Your task to perform on an android device: Open maps Image 0: 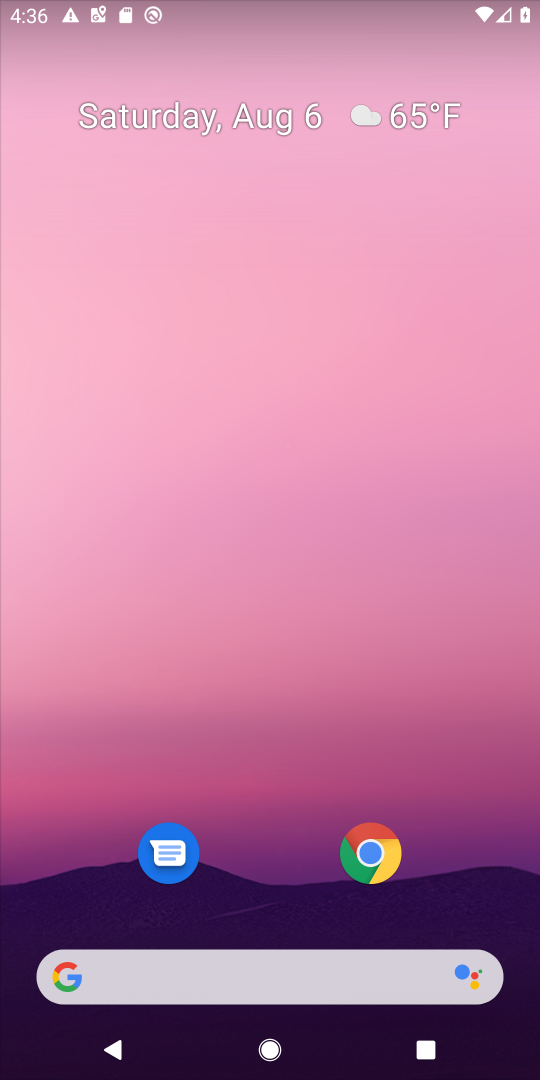
Step 0: drag from (245, 739) to (366, 67)
Your task to perform on an android device: Open maps Image 1: 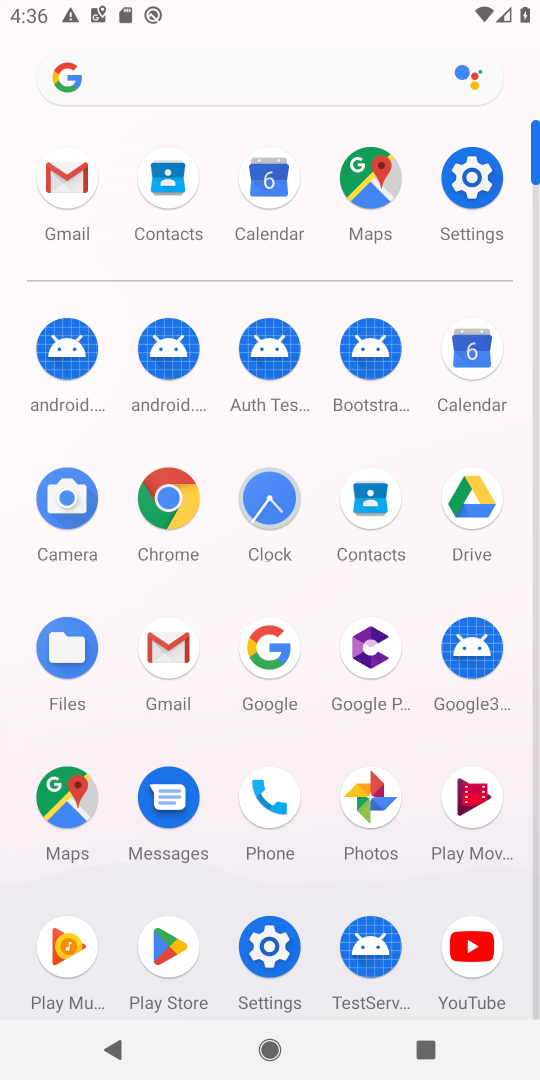
Step 1: click (365, 167)
Your task to perform on an android device: Open maps Image 2: 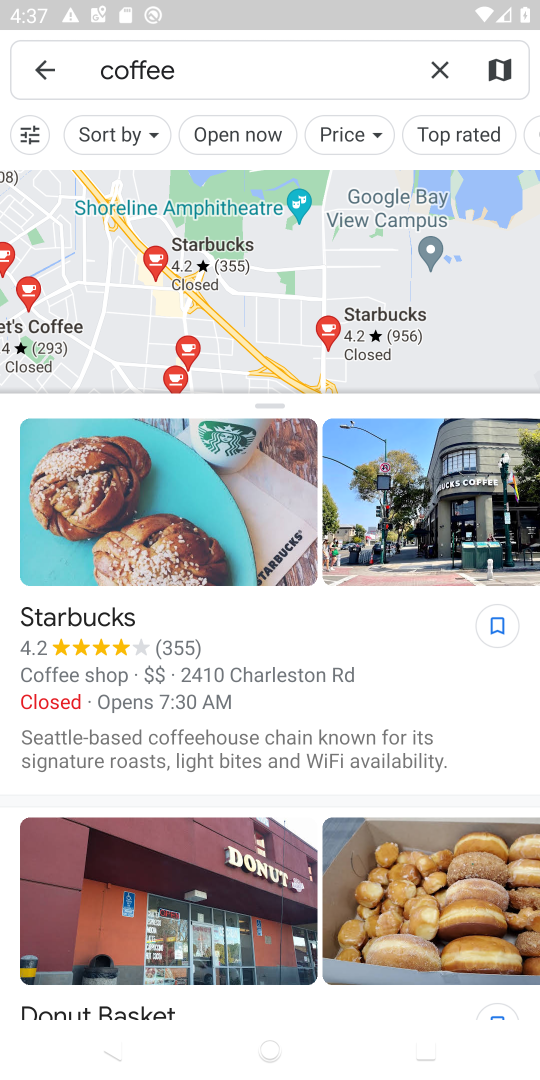
Step 2: task complete